Your task to perform on an android device: Open wifi settings Image 0: 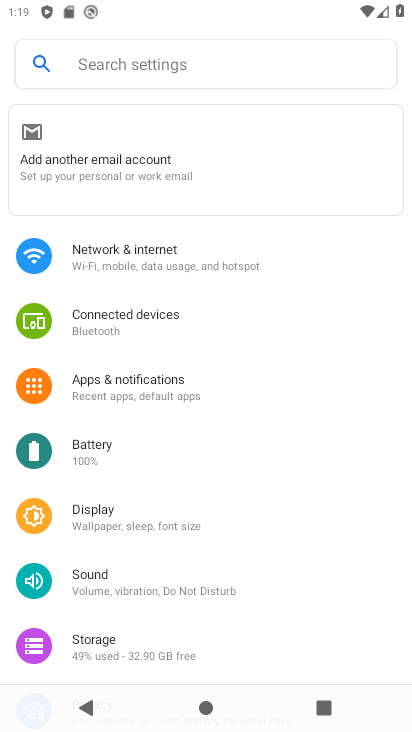
Step 0: press home button
Your task to perform on an android device: Open wifi settings Image 1: 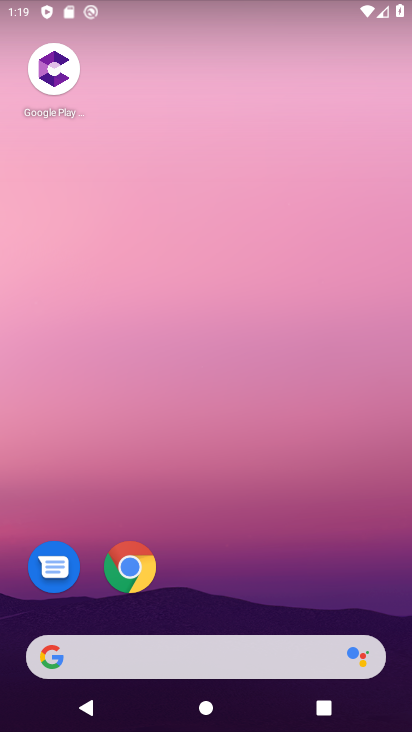
Step 1: drag from (263, 507) to (294, 132)
Your task to perform on an android device: Open wifi settings Image 2: 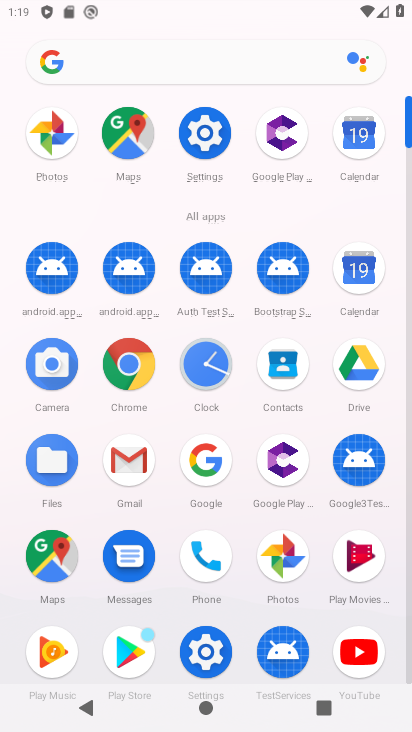
Step 2: click (201, 150)
Your task to perform on an android device: Open wifi settings Image 3: 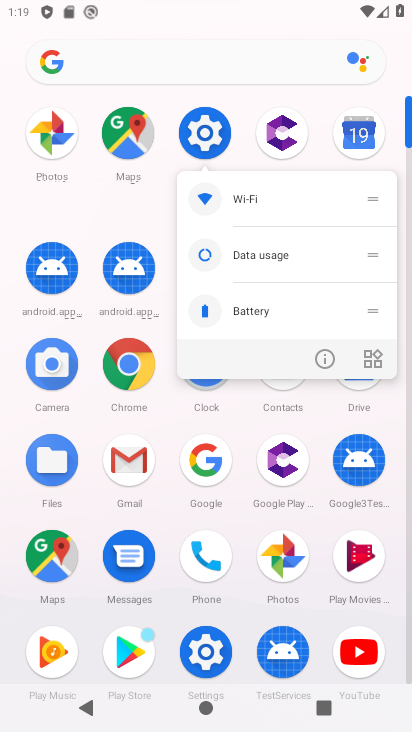
Step 3: click (195, 132)
Your task to perform on an android device: Open wifi settings Image 4: 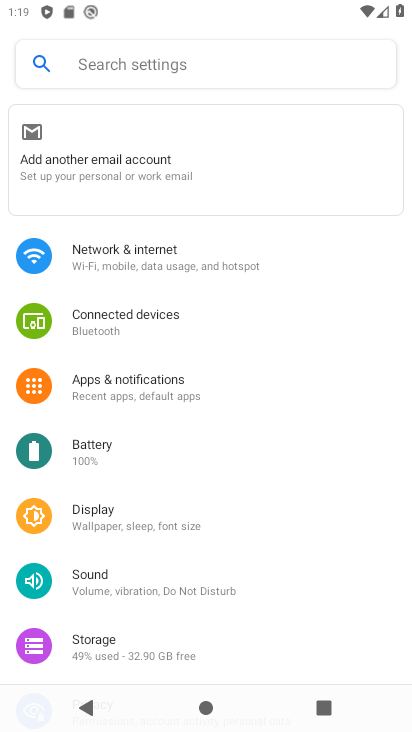
Step 4: click (171, 264)
Your task to perform on an android device: Open wifi settings Image 5: 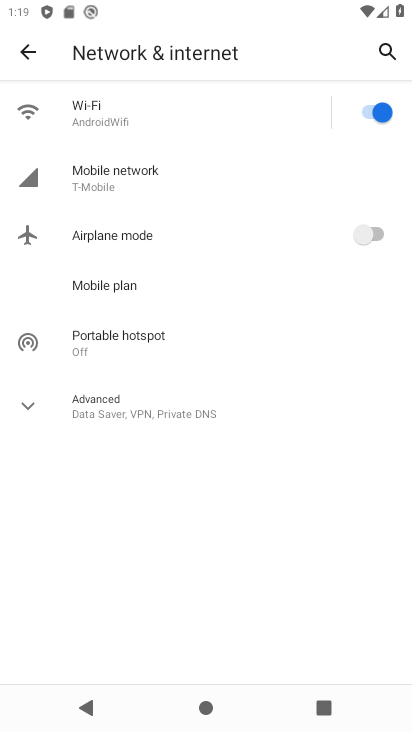
Step 5: task complete